Your task to perform on an android device: move an email to a new category in the gmail app Image 0: 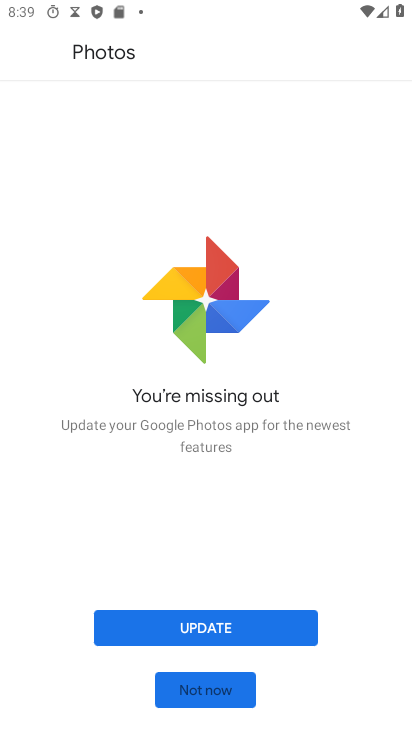
Step 0: press home button
Your task to perform on an android device: move an email to a new category in the gmail app Image 1: 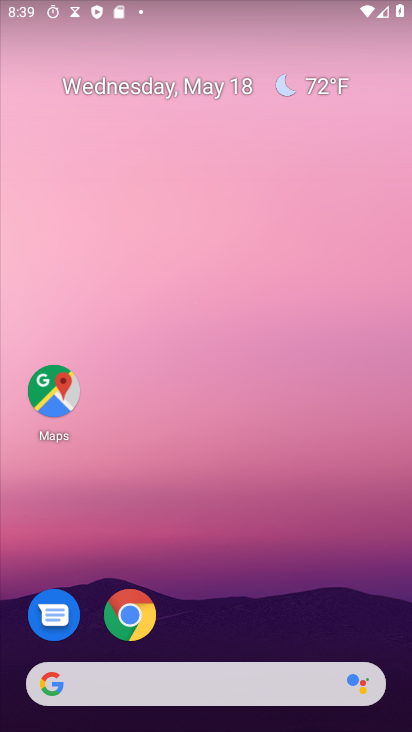
Step 1: drag from (305, 581) to (275, 118)
Your task to perform on an android device: move an email to a new category in the gmail app Image 2: 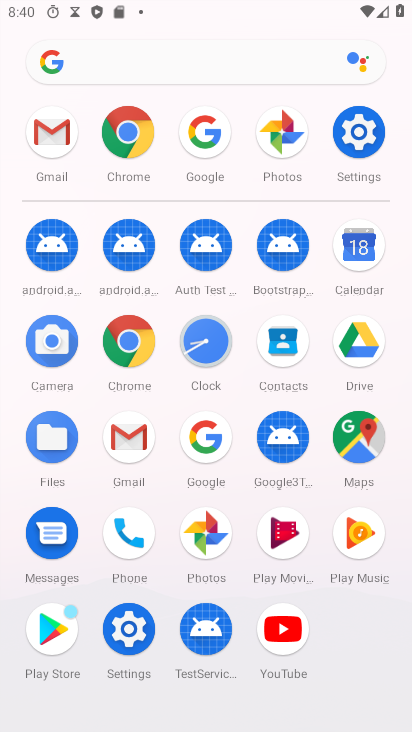
Step 2: click (112, 446)
Your task to perform on an android device: move an email to a new category in the gmail app Image 3: 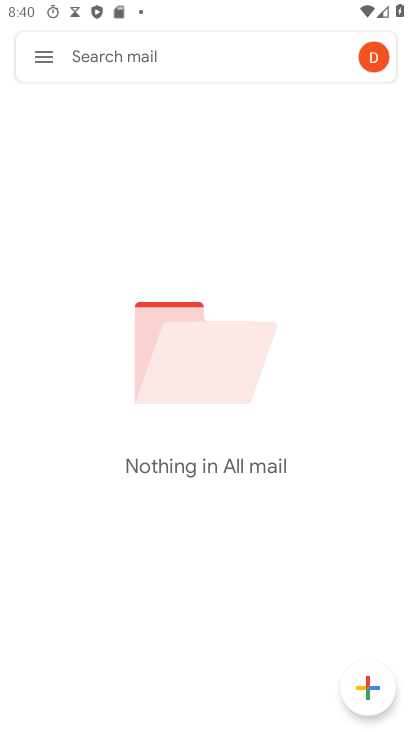
Step 3: click (35, 57)
Your task to perform on an android device: move an email to a new category in the gmail app Image 4: 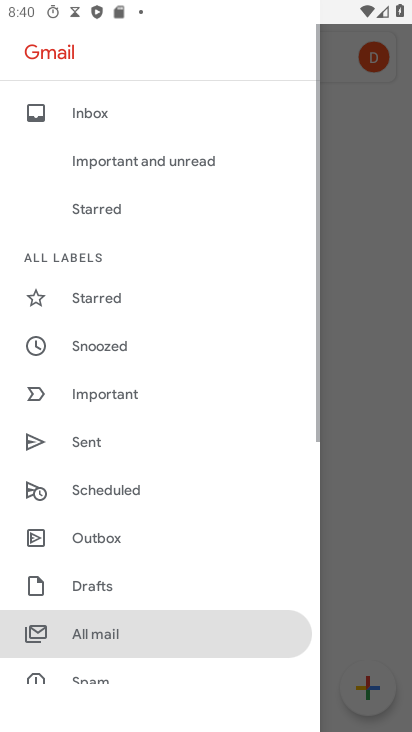
Step 4: click (92, 110)
Your task to perform on an android device: move an email to a new category in the gmail app Image 5: 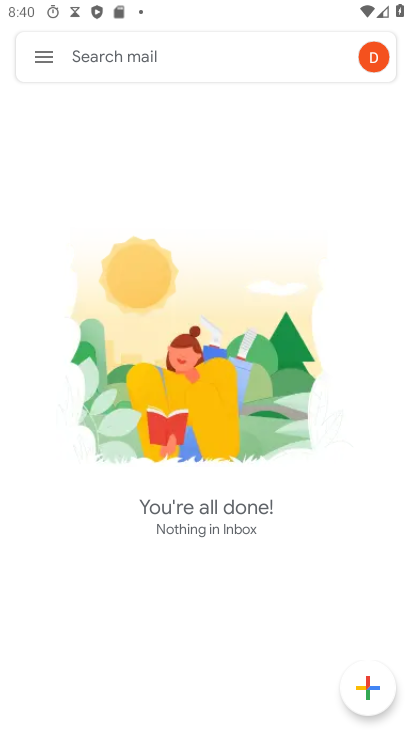
Step 5: task complete